Your task to perform on an android device: open app "Chime – Mobile Banking" (install if not already installed) Image 0: 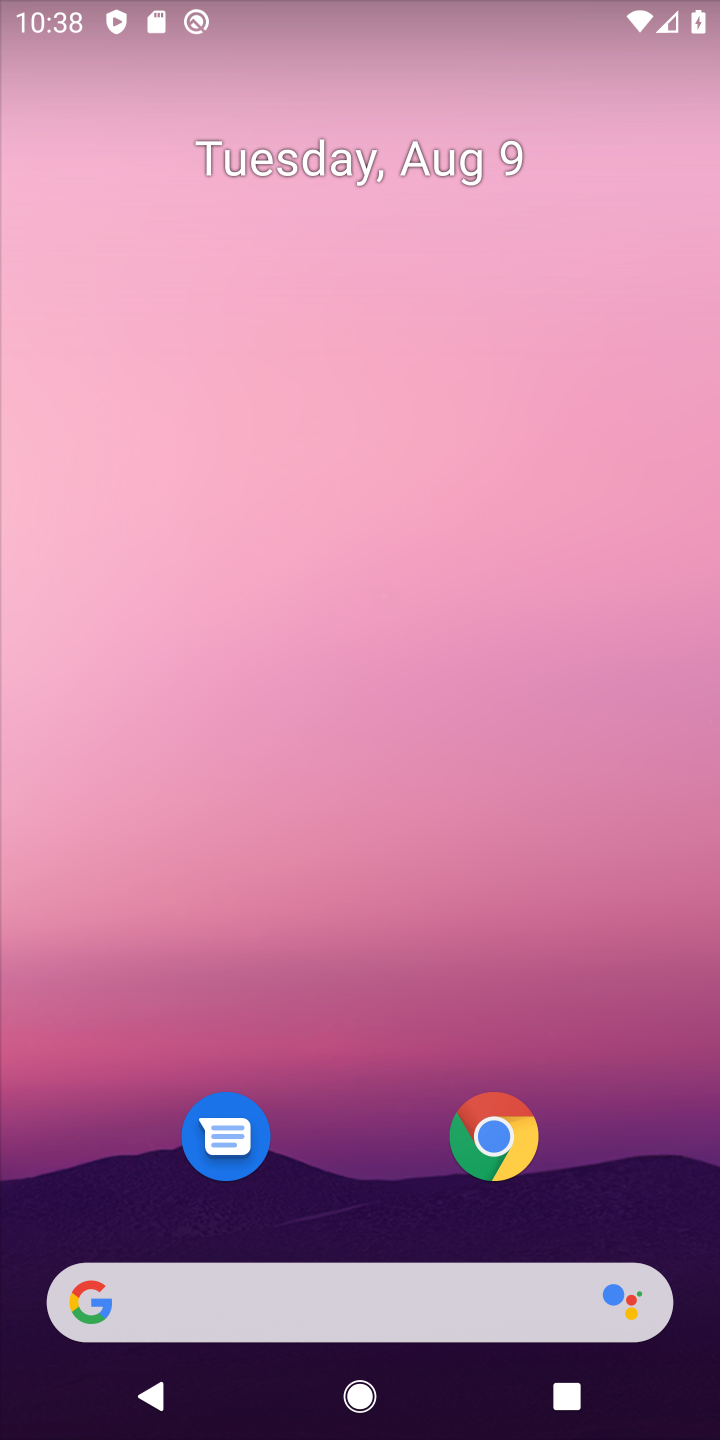
Step 0: drag from (332, 954) to (13, 308)
Your task to perform on an android device: open app "Chime – Mobile Banking" (install if not already installed) Image 1: 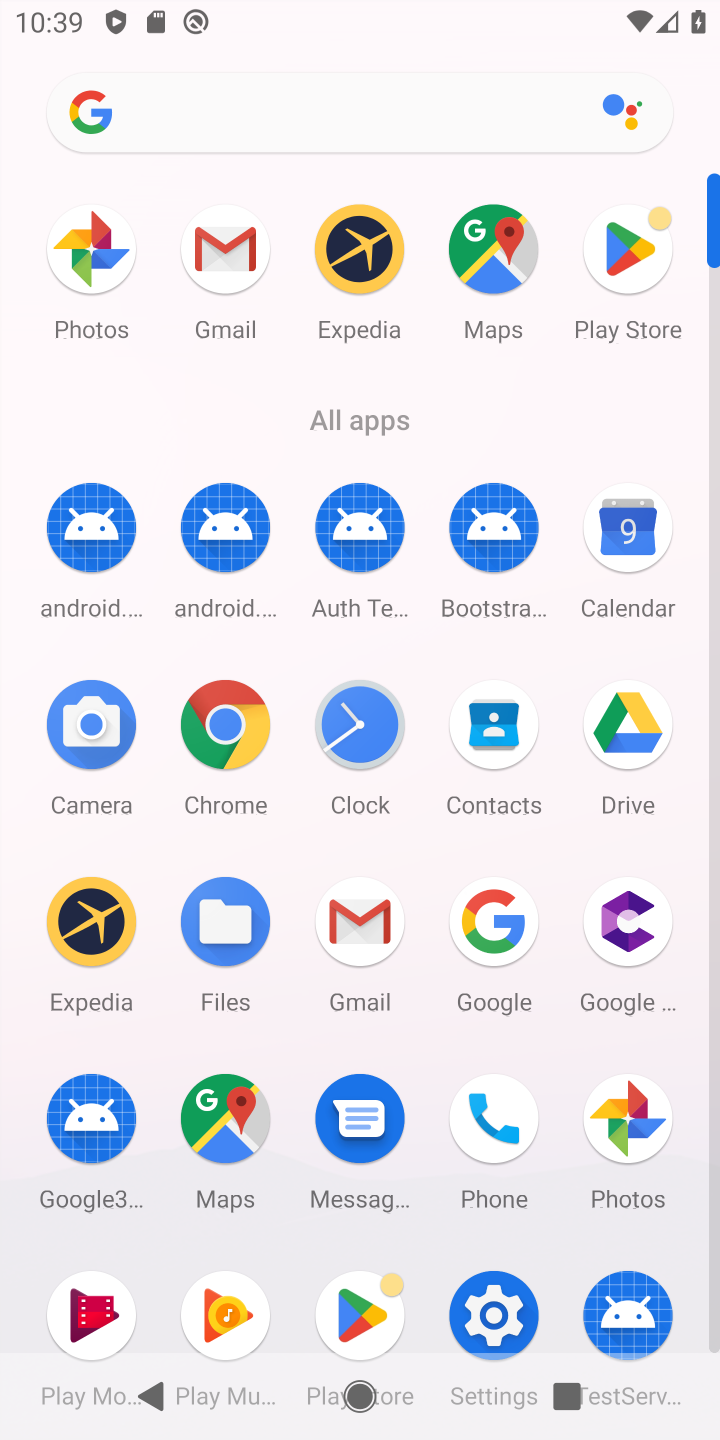
Step 1: click (627, 303)
Your task to perform on an android device: open app "Chime – Mobile Banking" (install if not already installed) Image 2: 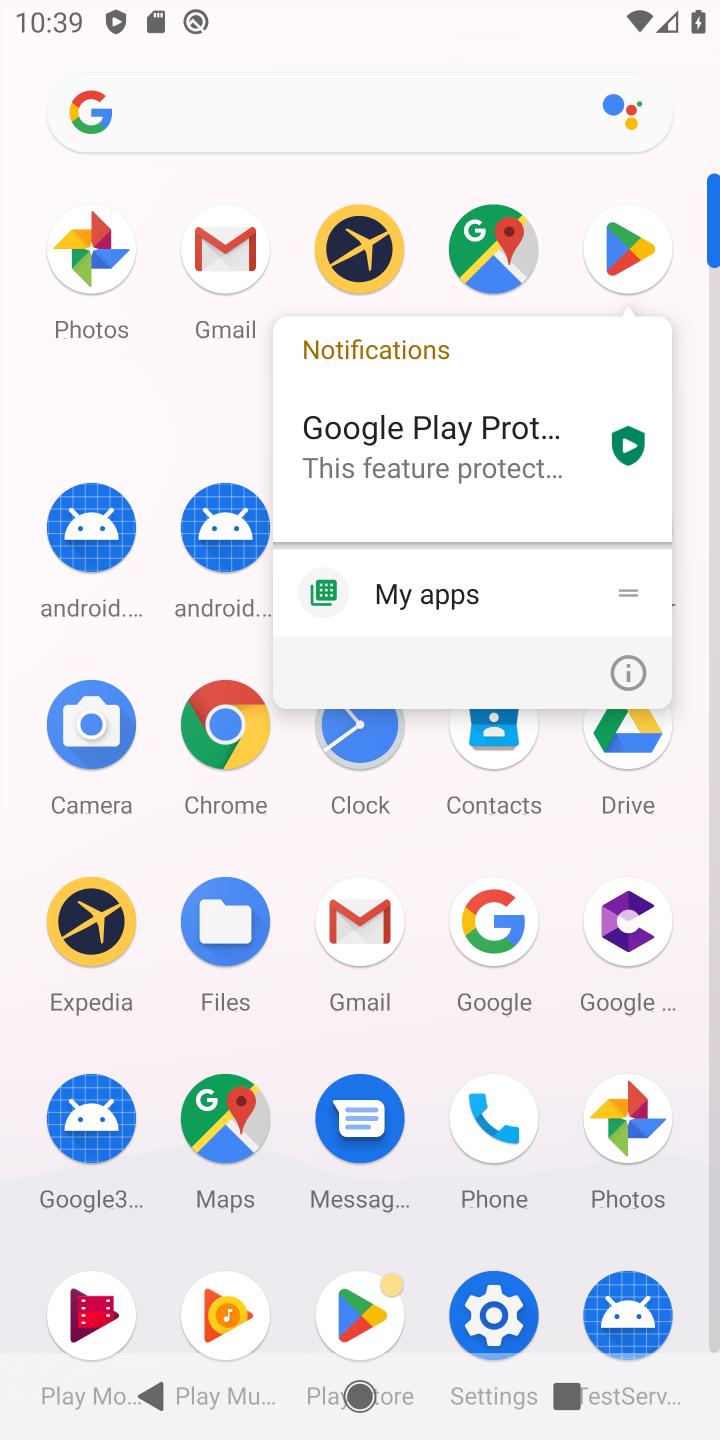
Step 2: click (637, 252)
Your task to perform on an android device: open app "Chime – Mobile Banking" (install if not already installed) Image 3: 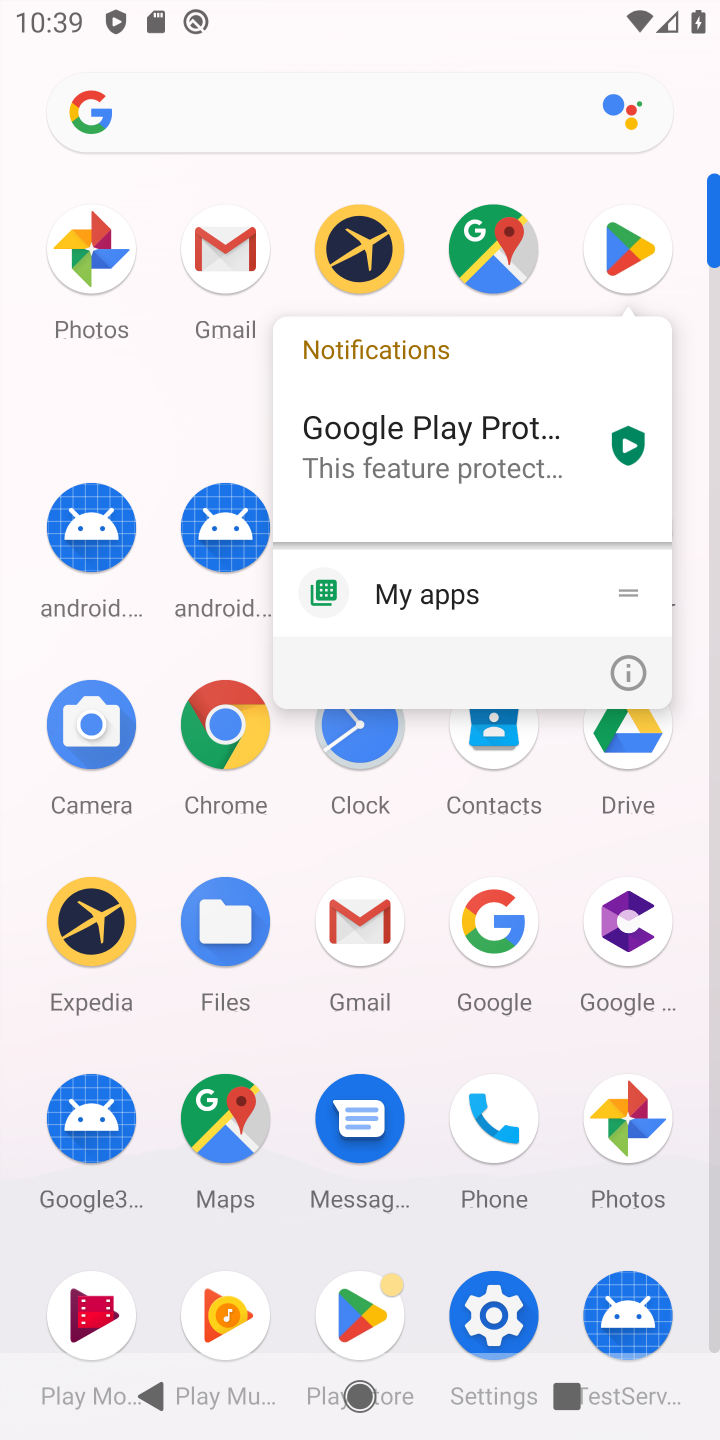
Step 3: click (637, 252)
Your task to perform on an android device: open app "Chime – Mobile Banking" (install if not already installed) Image 4: 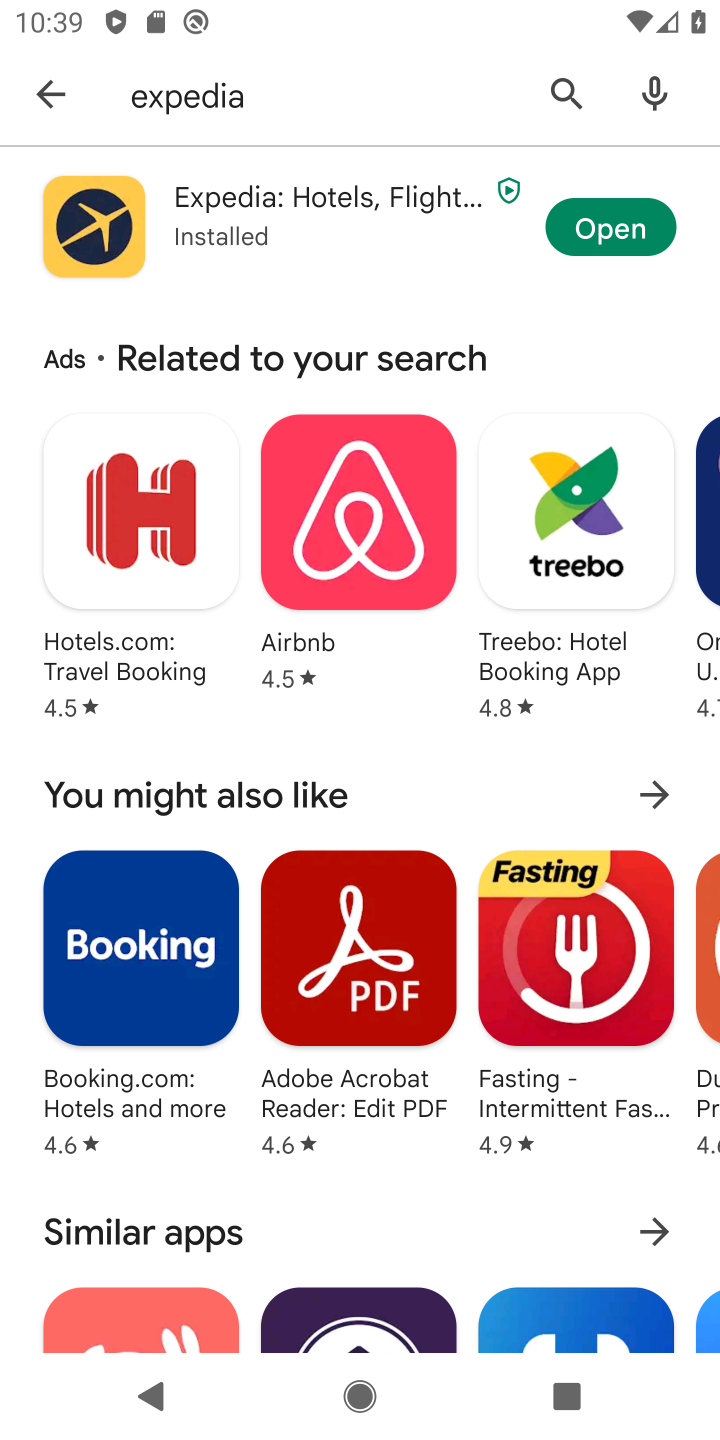
Step 4: click (345, 91)
Your task to perform on an android device: open app "Chime – Mobile Banking" (install if not already installed) Image 5: 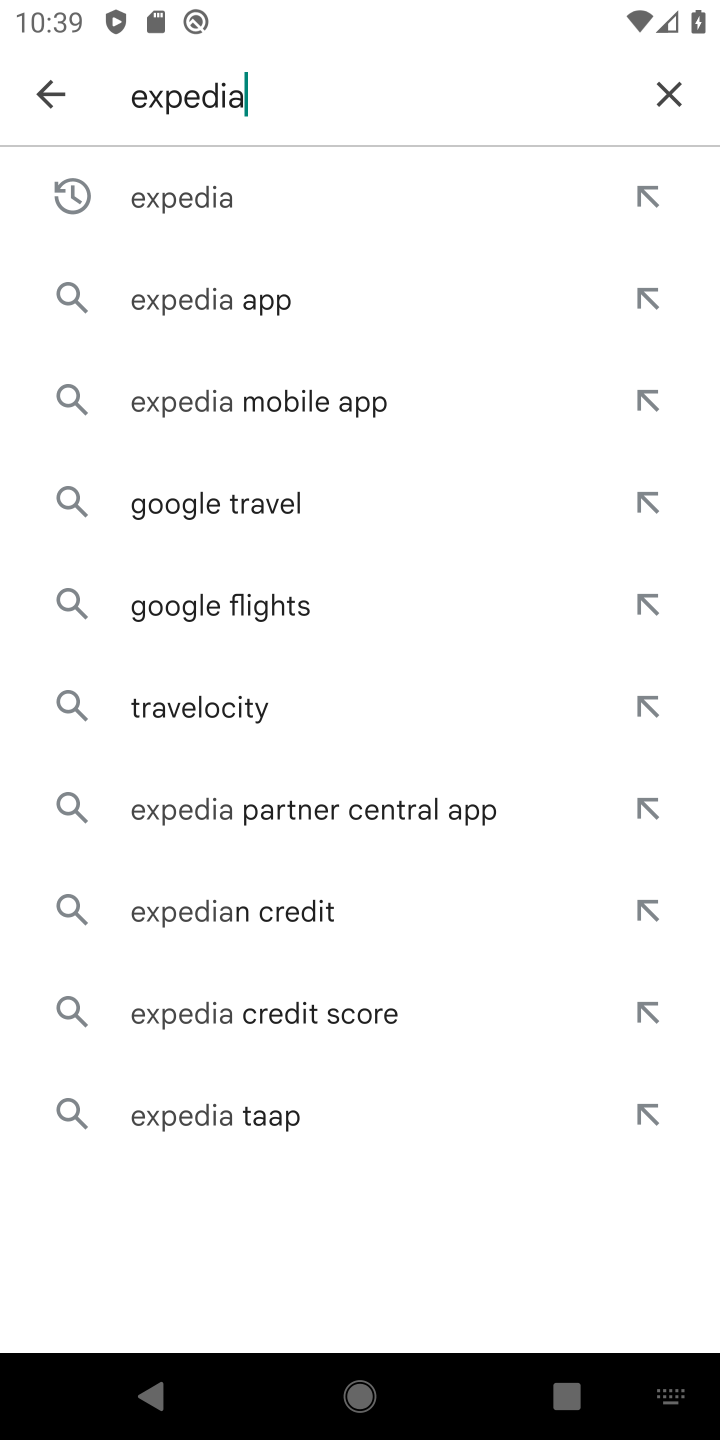
Step 5: click (669, 107)
Your task to perform on an android device: open app "Chime – Mobile Banking" (install if not already installed) Image 6: 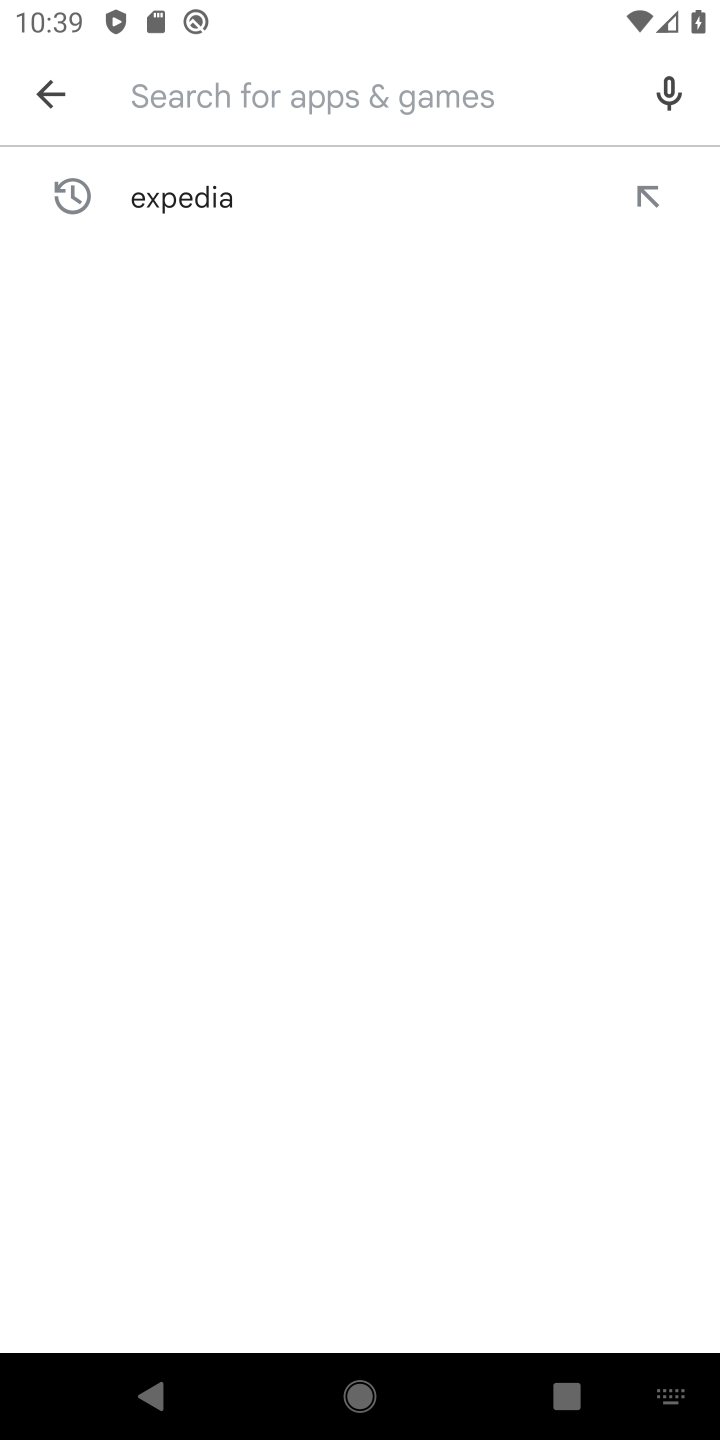
Step 6: type "chime"
Your task to perform on an android device: open app "Chime – Mobile Banking" (install if not already installed) Image 7: 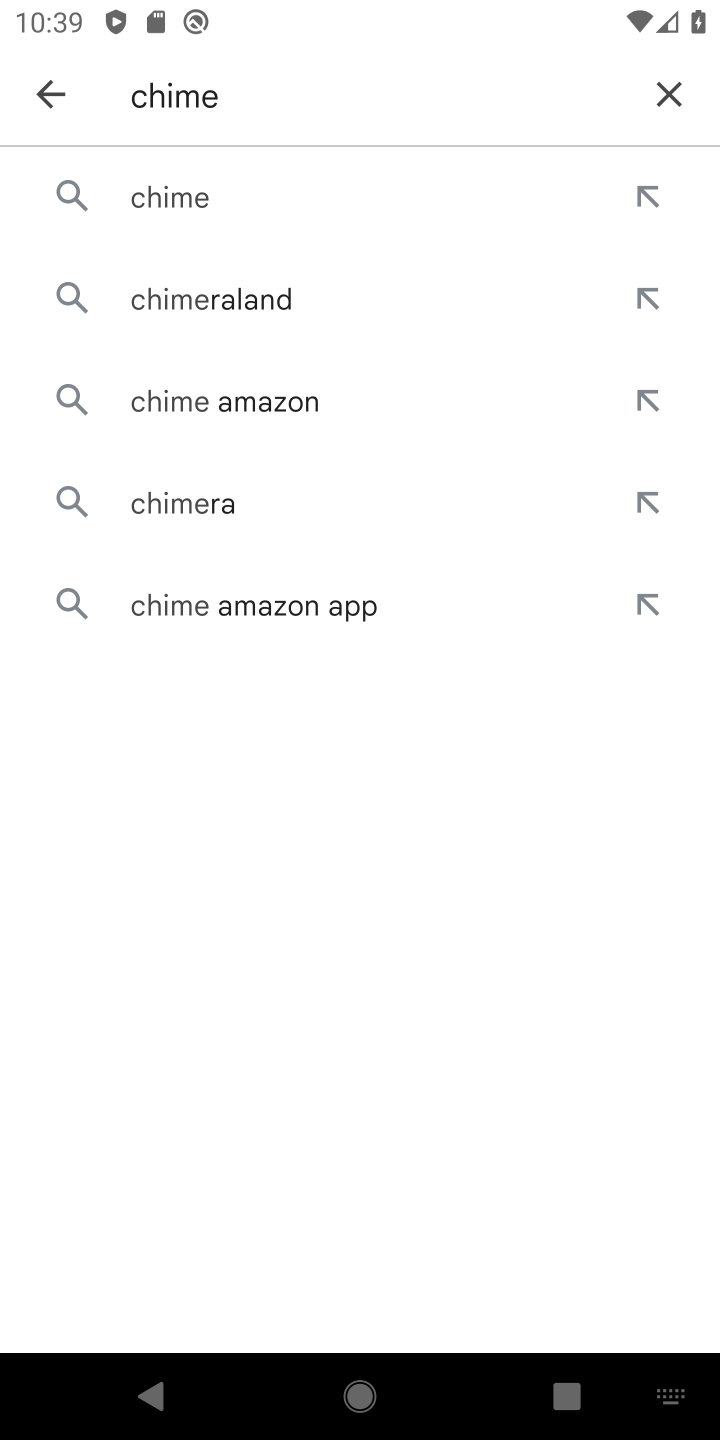
Step 7: click (252, 206)
Your task to perform on an android device: open app "Chime – Mobile Banking" (install if not already installed) Image 8: 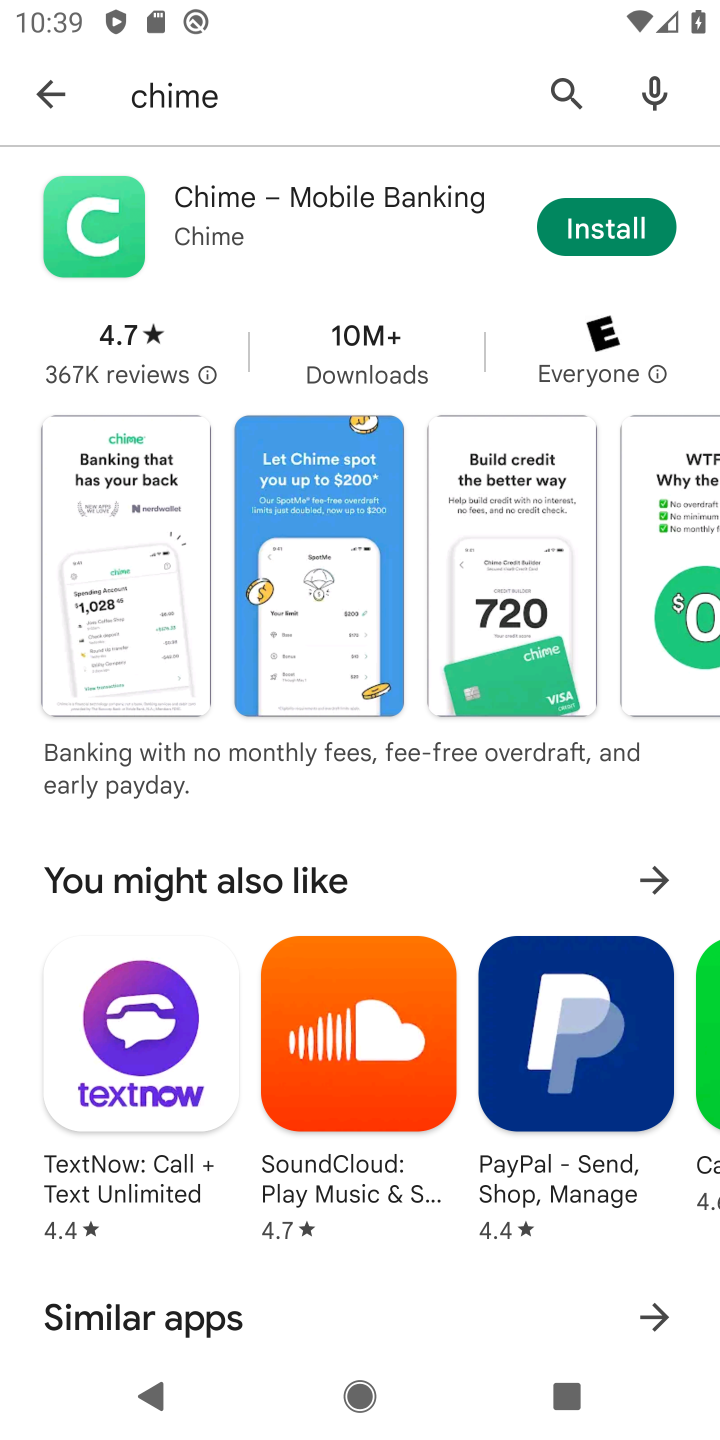
Step 8: click (601, 229)
Your task to perform on an android device: open app "Chime – Mobile Banking" (install if not already installed) Image 9: 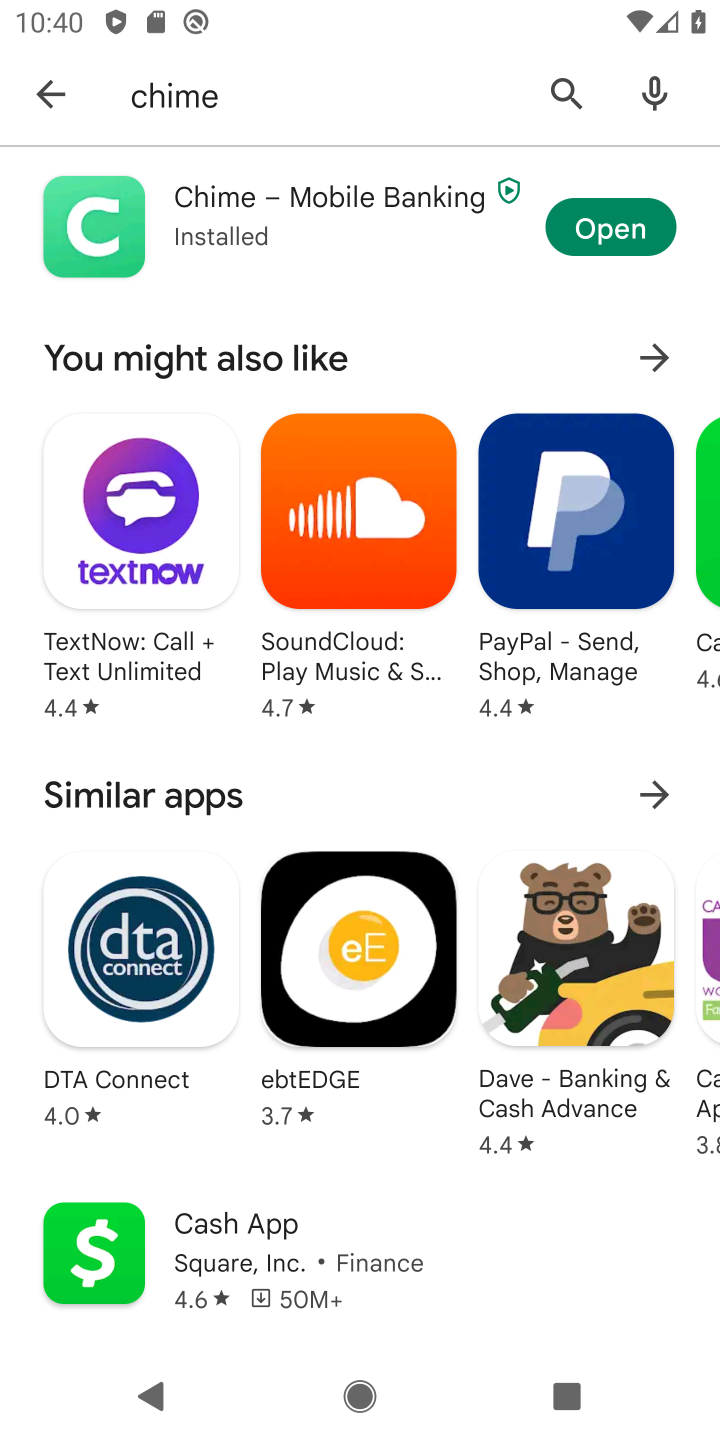
Step 9: click (652, 242)
Your task to perform on an android device: open app "Chime – Mobile Banking" (install if not already installed) Image 10: 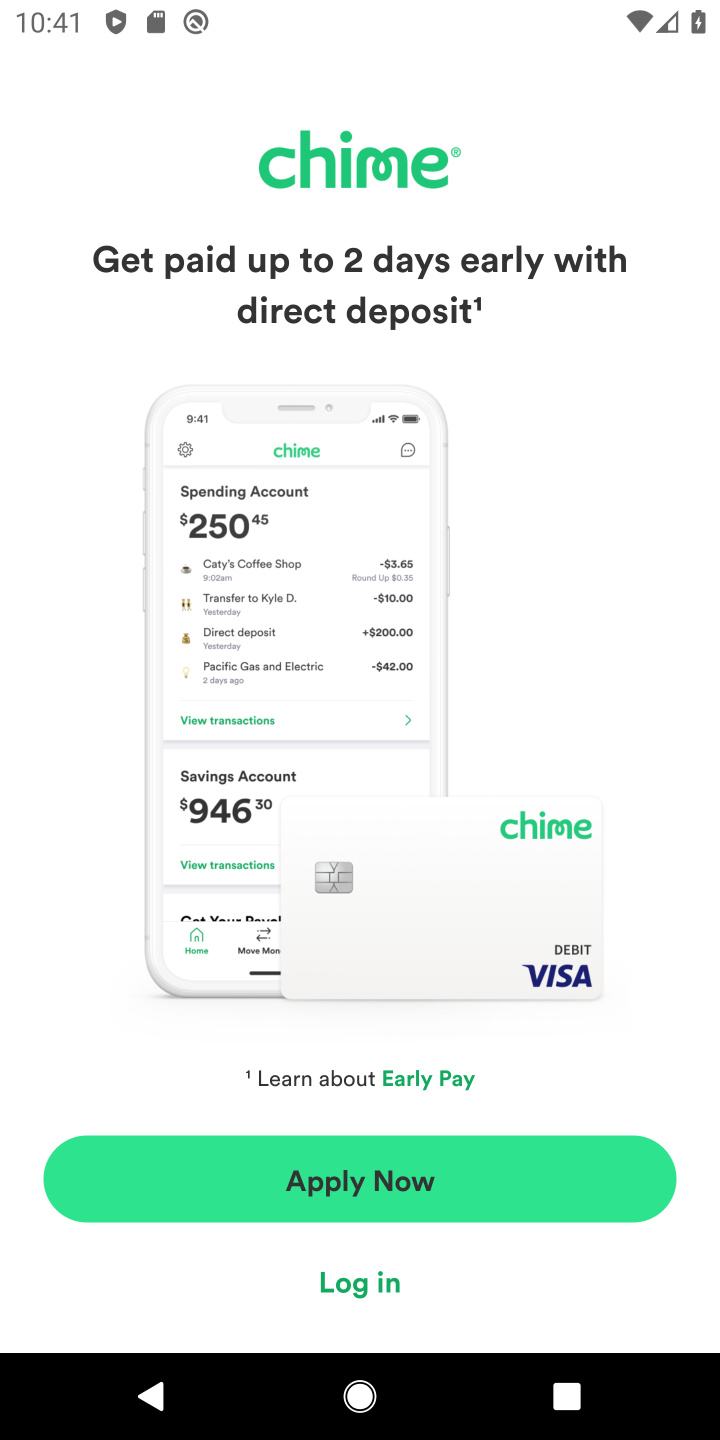
Step 10: click (369, 1270)
Your task to perform on an android device: open app "Chime – Mobile Banking" (install if not already installed) Image 11: 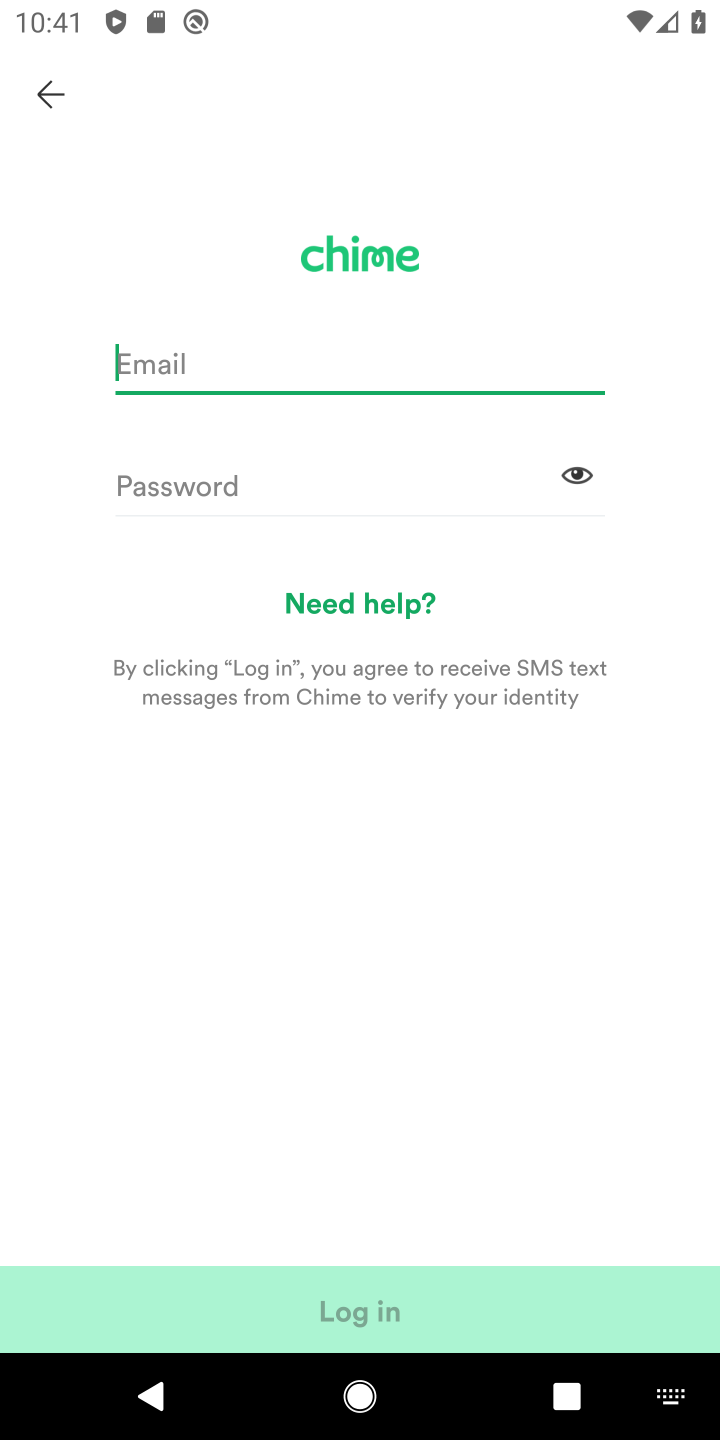
Step 11: task complete